Your task to perform on an android device: Go to notification settings Image 0: 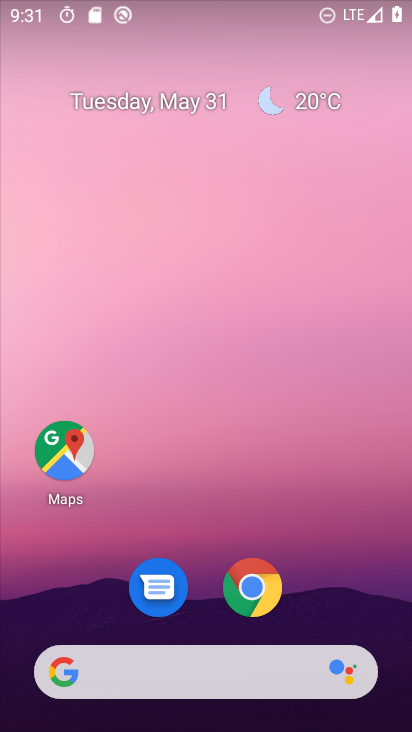
Step 0: drag from (202, 623) to (260, 126)
Your task to perform on an android device: Go to notification settings Image 1: 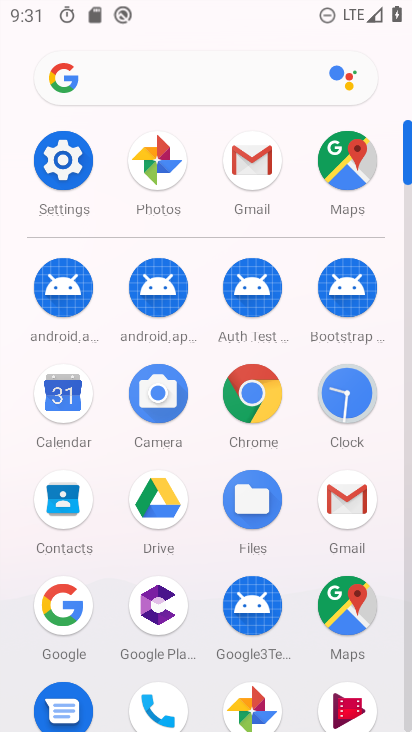
Step 1: click (64, 174)
Your task to perform on an android device: Go to notification settings Image 2: 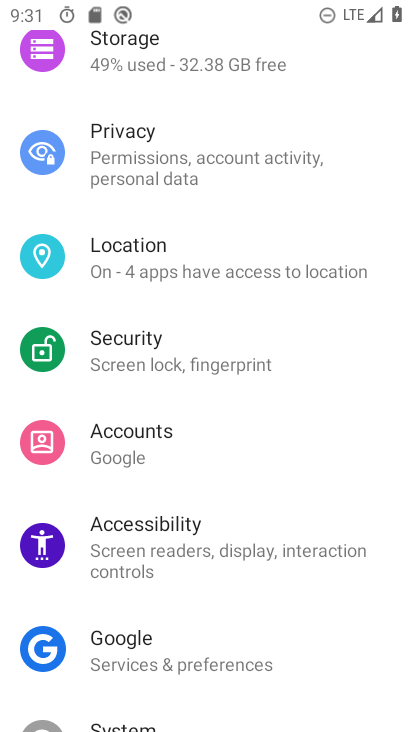
Step 2: drag from (222, 88) to (199, 468)
Your task to perform on an android device: Go to notification settings Image 3: 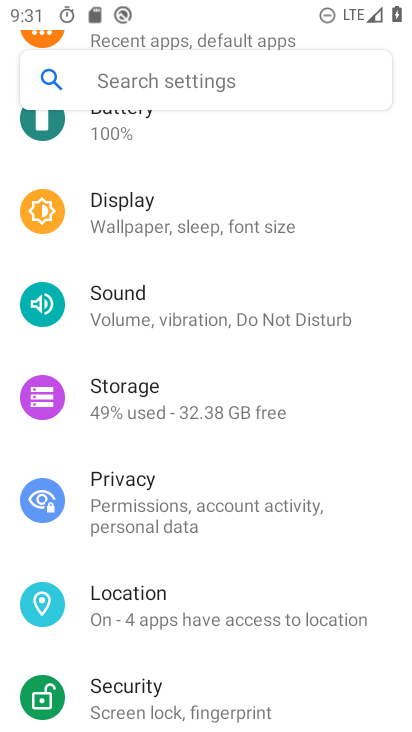
Step 3: drag from (206, 165) to (244, 557)
Your task to perform on an android device: Go to notification settings Image 4: 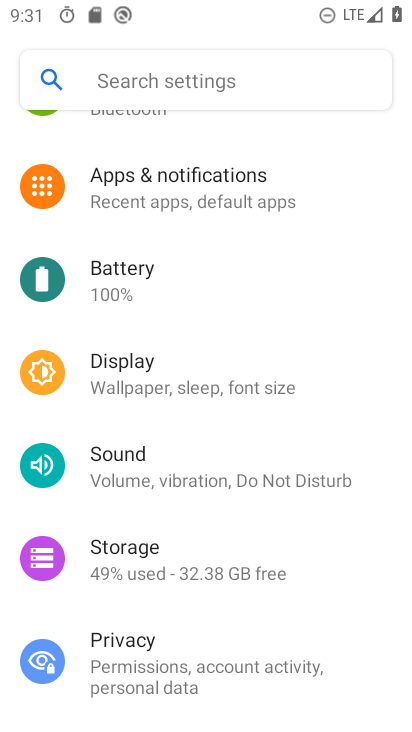
Step 4: click (205, 163)
Your task to perform on an android device: Go to notification settings Image 5: 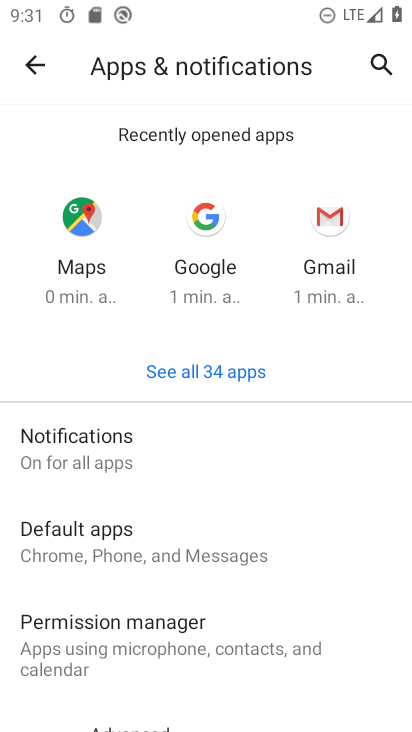
Step 5: task complete